Your task to perform on an android device: Open ESPN.com Image 0: 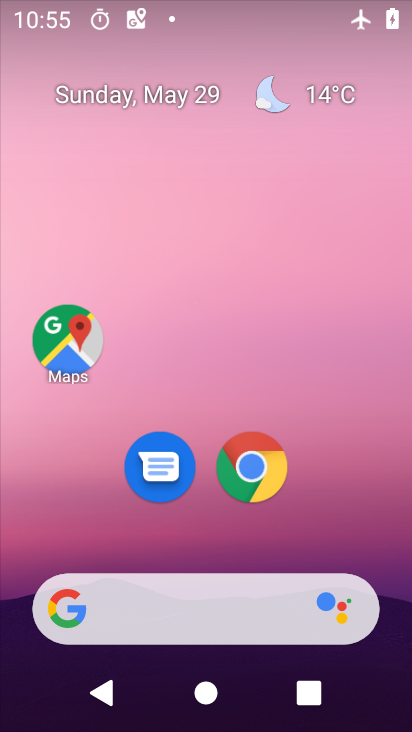
Step 0: click (255, 493)
Your task to perform on an android device: Open ESPN.com Image 1: 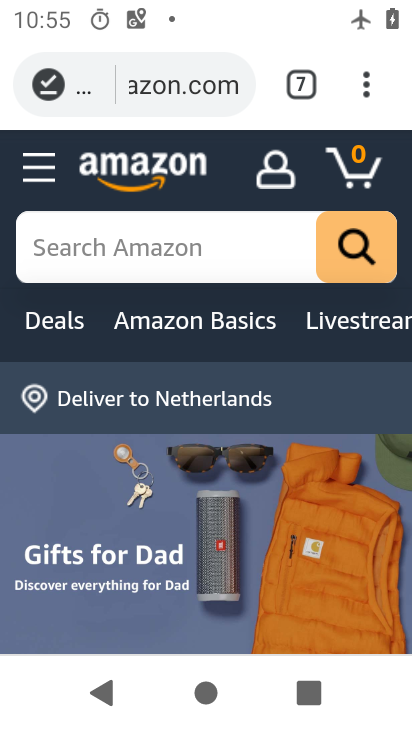
Step 1: click (289, 79)
Your task to perform on an android device: Open ESPN.com Image 2: 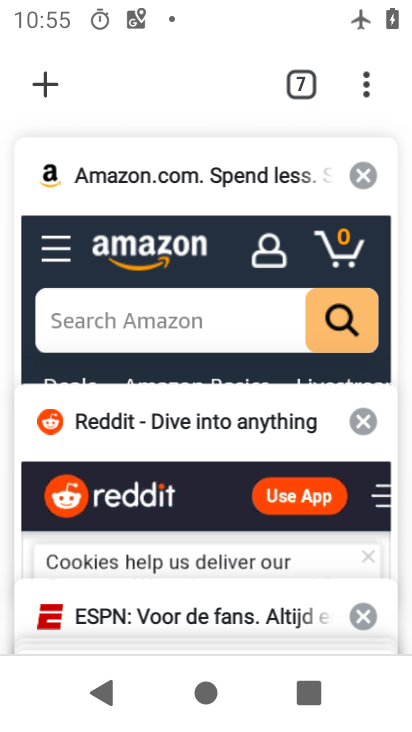
Step 2: drag from (179, 391) to (183, 192)
Your task to perform on an android device: Open ESPN.com Image 3: 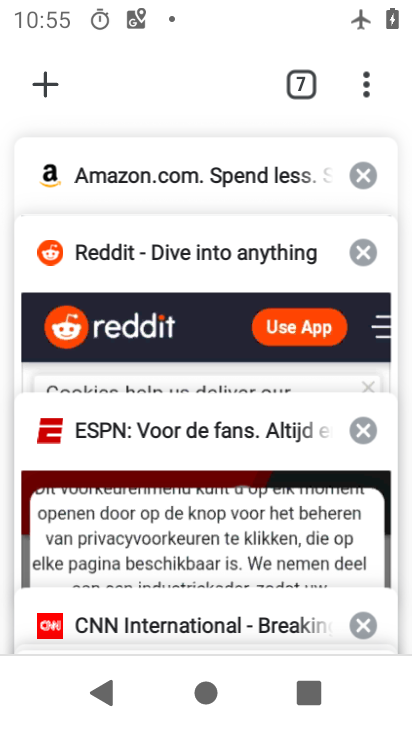
Step 3: click (173, 461)
Your task to perform on an android device: Open ESPN.com Image 4: 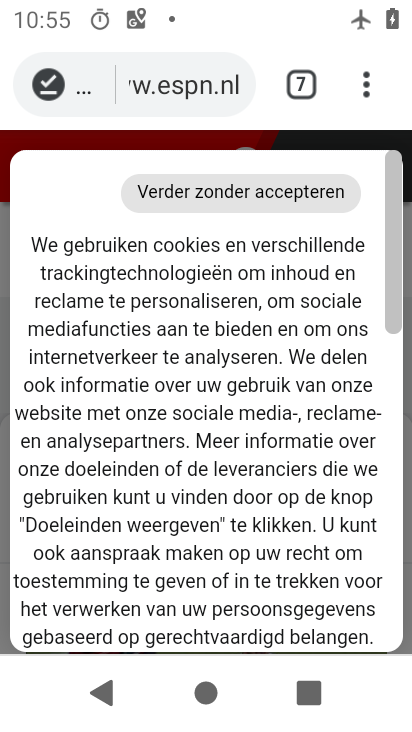
Step 4: task complete